Your task to perform on an android device: Open the Play Movies app and select the watchlist tab. Image 0: 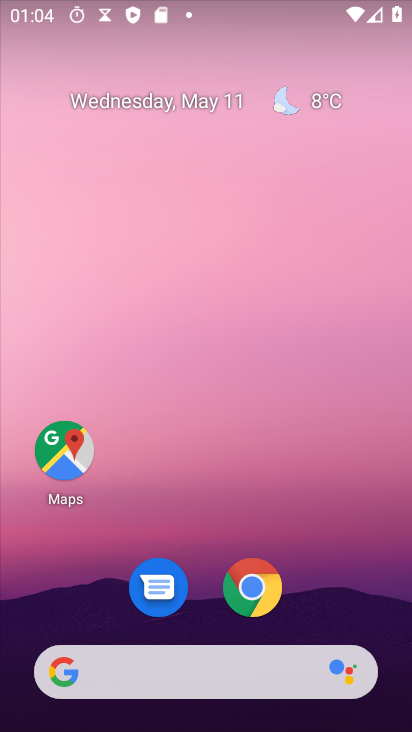
Step 0: drag from (361, 656) to (110, 126)
Your task to perform on an android device: Open the Play Movies app and select the watchlist tab. Image 1: 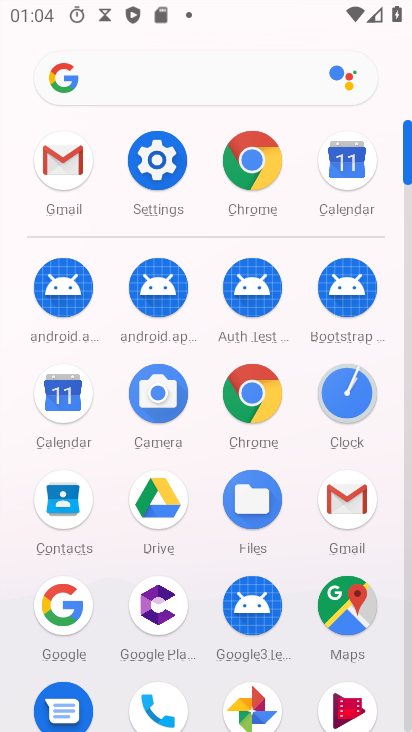
Step 1: drag from (321, 667) to (195, 141)
Your task to perform on an android device: Open the Play Movies app and select the watchlist tab. Image 2: 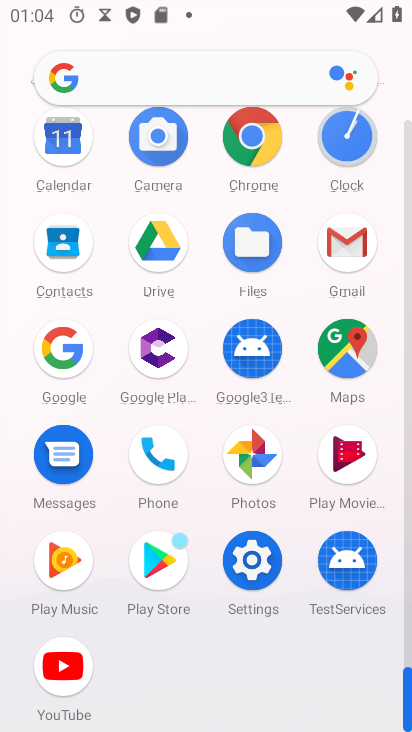
Step 2: drag from (266, 570) to (232, 197)
Your task to perform on an android device: Open the Play Movies app and select the watchlist tab. Image 3: 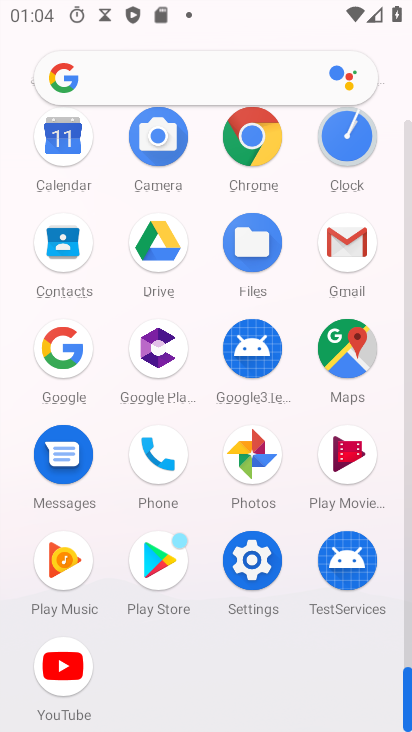
Step 3: click (75, 660)
Your task to perform on an android device: Open the Play Movies app and select the watchlist tab. Image 4: 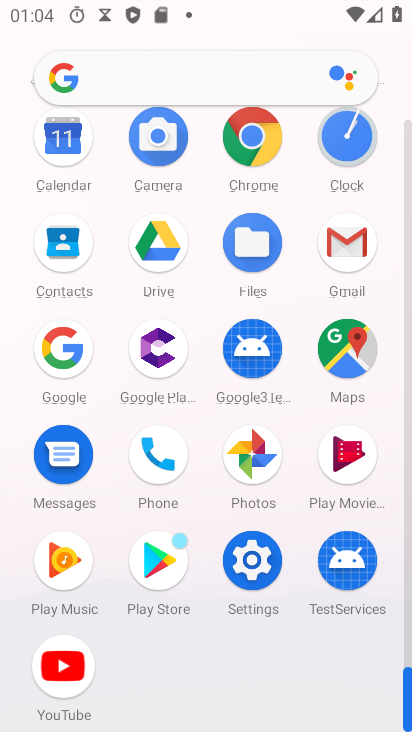
Step 4: click (73, 656)
Your task to perform on an android device: Open the Play Movies app and select the watchlist tab. Image 5: 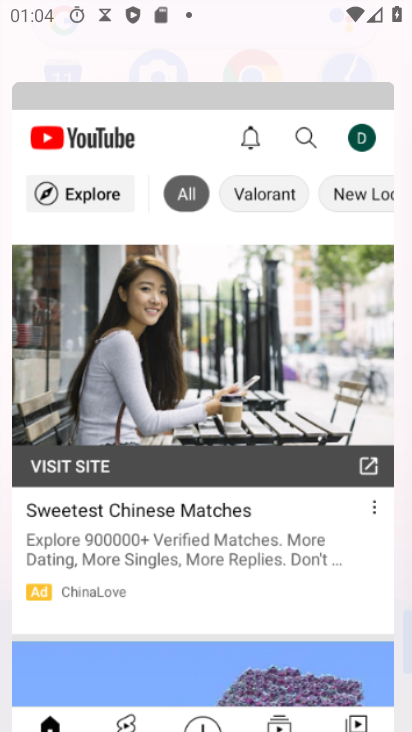
Step 5: click (73, 656)
Your task to perform on an android device: Open the Play Movies app and select the watchlist tab. Image 6: 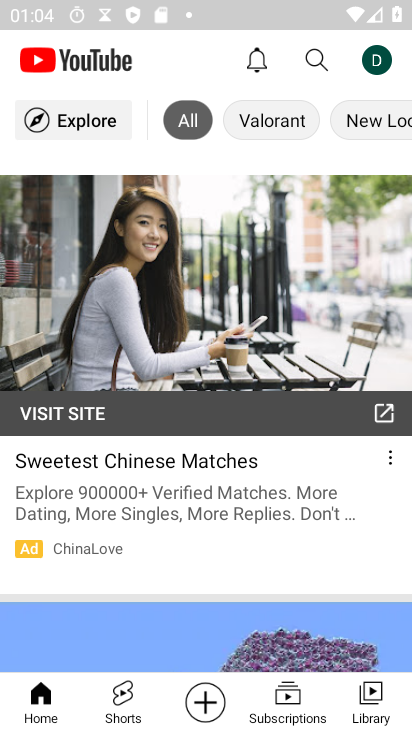
Step 6: drag from (265, 577) to (161, 283)
Your task to perform on an android device: Open the Play Movies app and select the watchlist tab. Image 7: 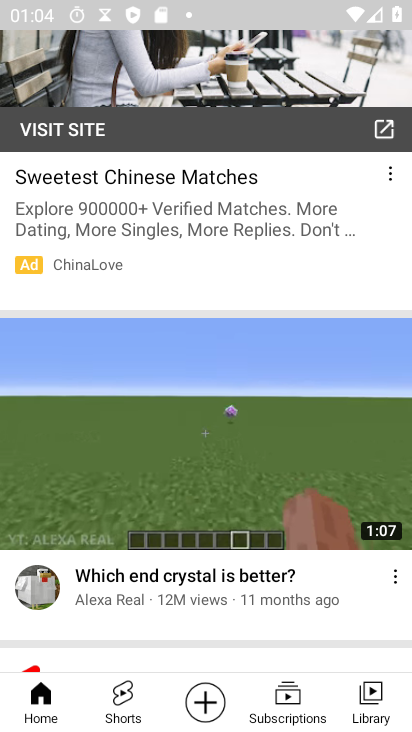
Step 7: press back button
Your task to perform on an android device: Open the Play Movies app and select the watchlist tab. Image 8: 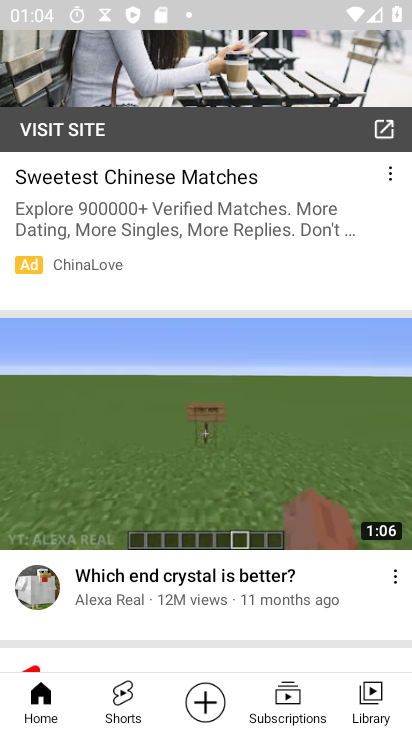
Step 8: press back button
Your task to perform on an android device: Open the Play Movies app and select the watchlist tab. Image 9: 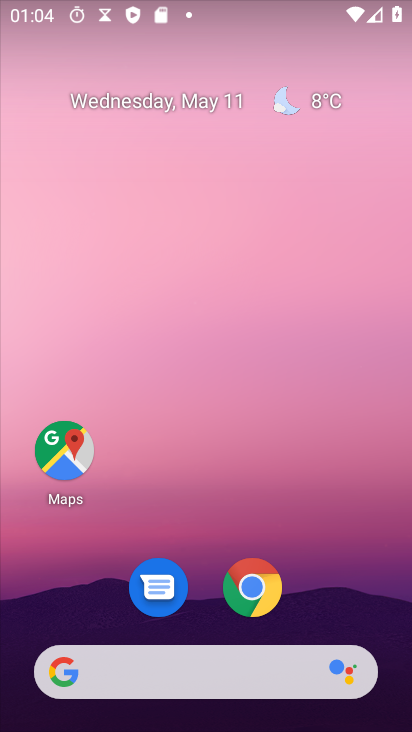
Step 9: drag from (334, 595) to (234, 338)
Your task to perform on an android device: Open the Play Movies app and select the watchlist tab. Image 10: 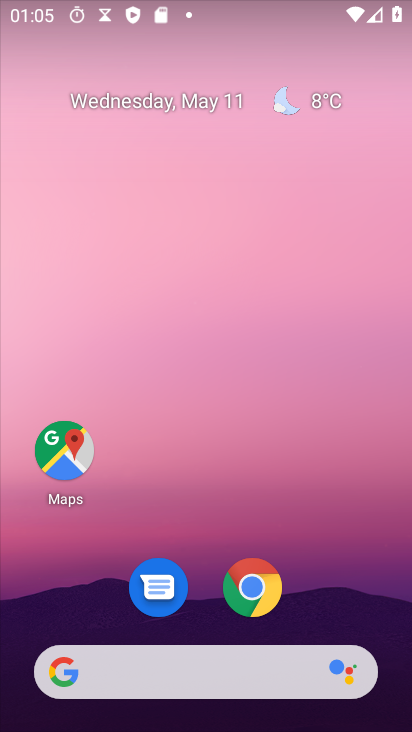
Step 10: drag from (320, 583) to (124, 192)
Your task to perform on an android device: Open the Play Movies app and select the watchlist tab. Image 11: 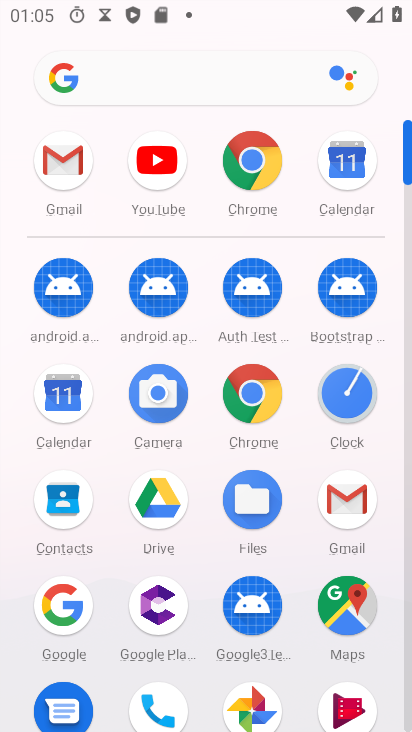
Step 11: drag from (304, 647) to (227, 153)
Your task to perform on an android device: Open the Play Movies app and select the watchlist tab. Image 12: 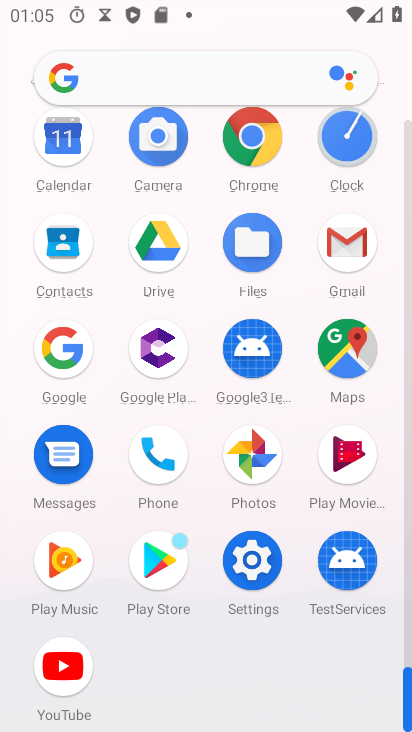
Step 12: click (58, 671)
Your task to perform on an android device: Open the Play Movies app and select the watchlist tab. Image 13: 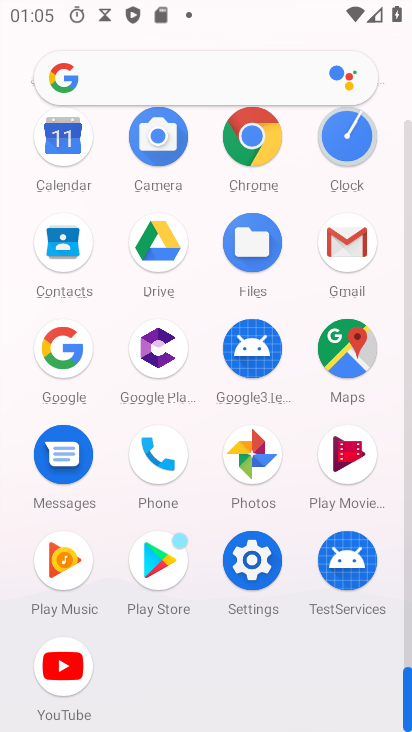
Step 13: click (58, 671)
Your task to perform on an android device: Open the Play Movies app and select the watchlist tab. Image 14: 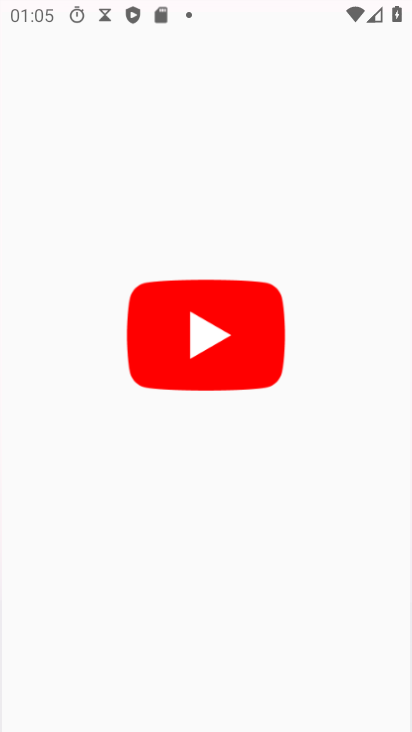
Step 14: click (58, 671)
Your task to perform on an android device: Open the Play Movies app and select the watchlist tab. Image 15: 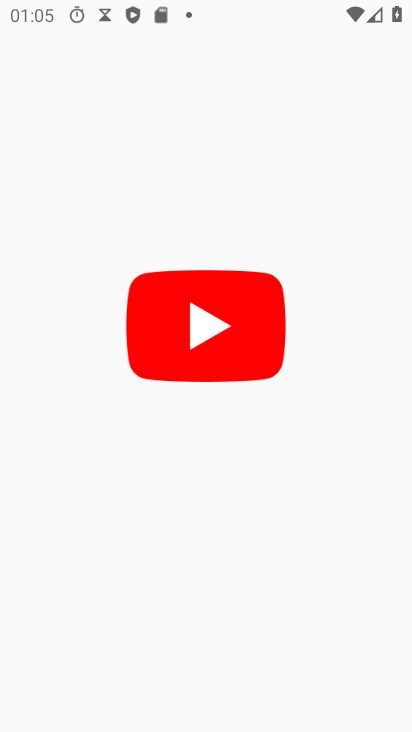
Step 15: click (58, 671)
Your task to perform on an android device: Open the Play Movies app and select the watchlist tab. Image 16: 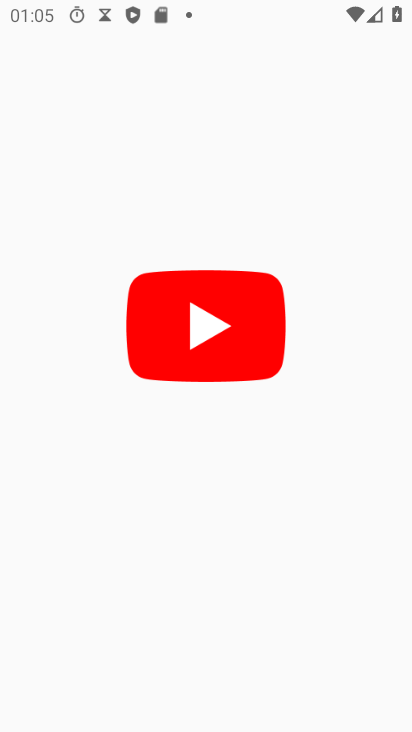
Step 16: click (59, 670)
Your task to perform on an android device: Open the Play Movies app and select the watchlist tab. Image 17: 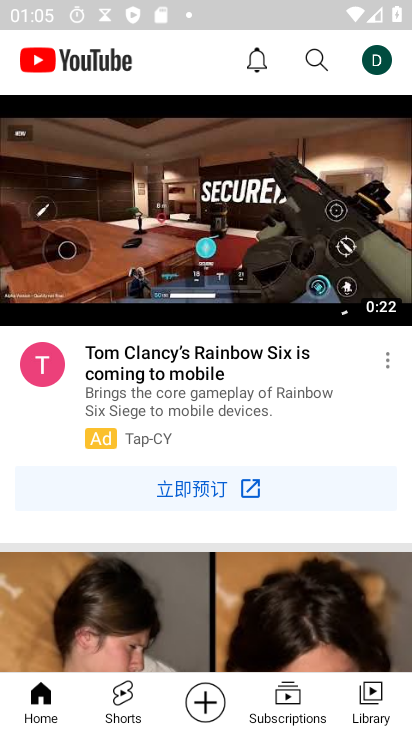
Step 17: press back button
Your task to perform on an android device: Open the Play Movies app and select the watchlist tab. Image 18: 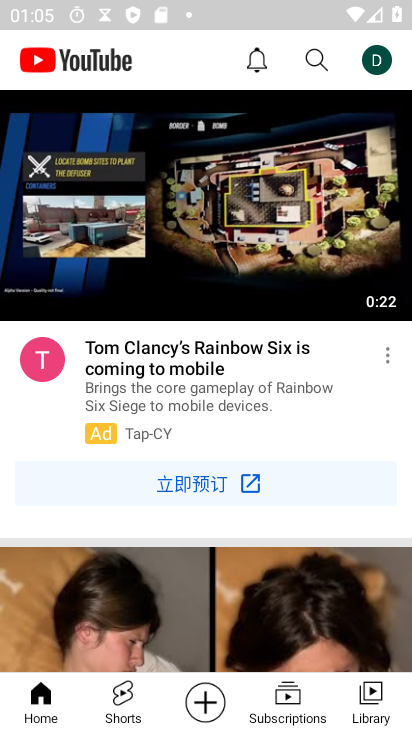
Step 18: press back button
Your task to perform on an android device: Open the Play Movies app and select the watchlist tab. Image 19: 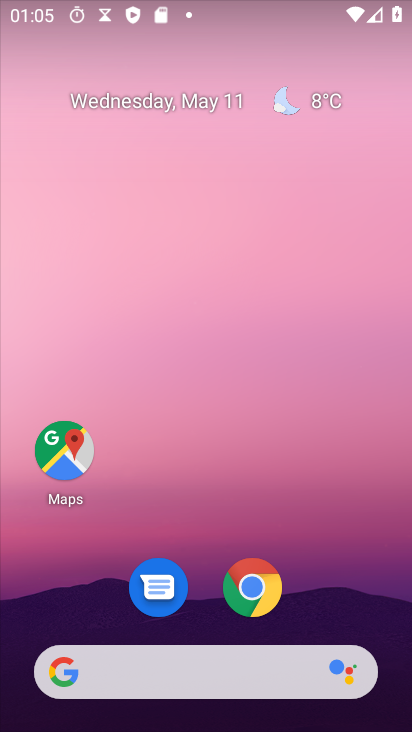
Step 19: press back button
Your task to perform on an android device: Open the Play Movies app and select the watchlist tab. Image 20: 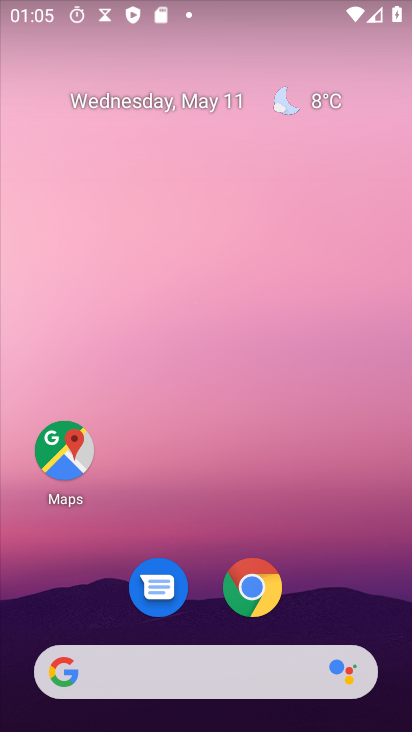
Step 20: drag from (268, 459) to (95, 134)
Your task to perform on an android device: Open the Play Movies app and select the watchlist tab. Image 21: 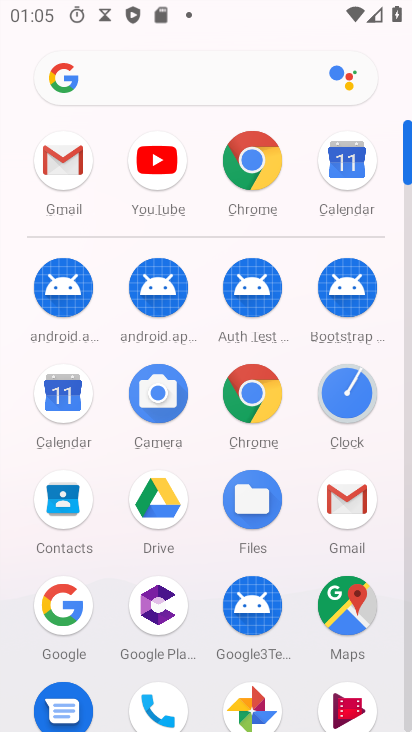
Step 21: drag from (294, 577) to (248, 79)
Your task to perform on an android device: Open the Play Movies app and select the watchlist tab. Image 22: 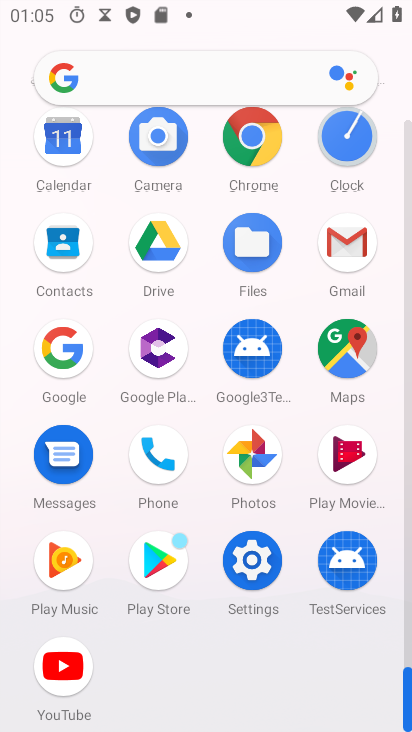
Step 22: click (360, 454)
Your task to perform on an android device: Open the Play Movies app and select the watchlist tab. Image 23: 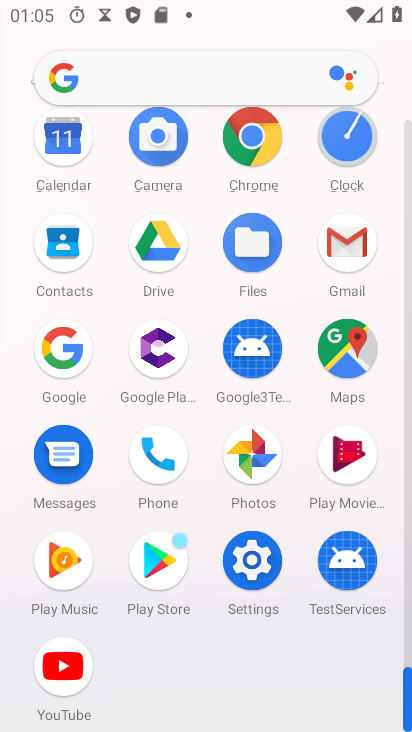
Step 23: click (353, 454)
Your task to perform on an android device: Open the Play Movies app and select the watchlist tab. Image 24: 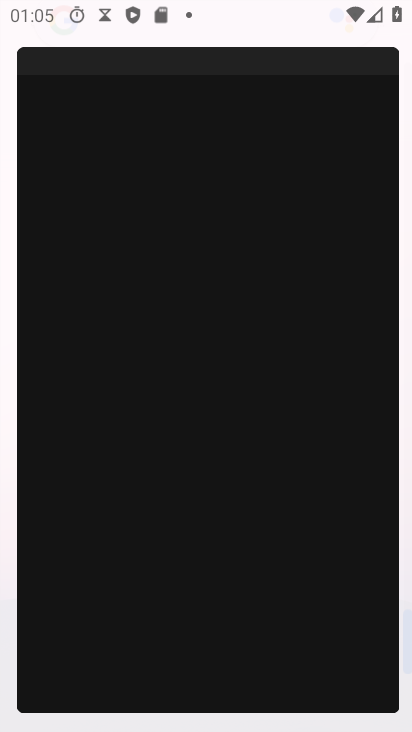
Step 24: click (352, 455)
Your task to perform on an android device: Open the Play Movies app and select the watchlist tab. Image 25: 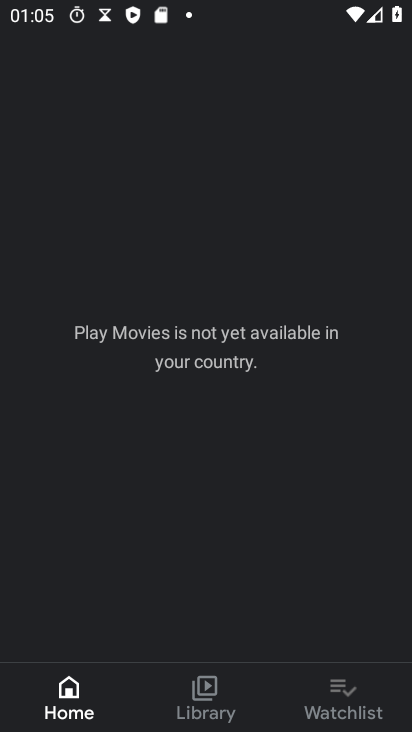
Step 25: click (347, 697)
Your task to perform on an android device: Open the Play Movies app and select the watchlist tab. Image 26: 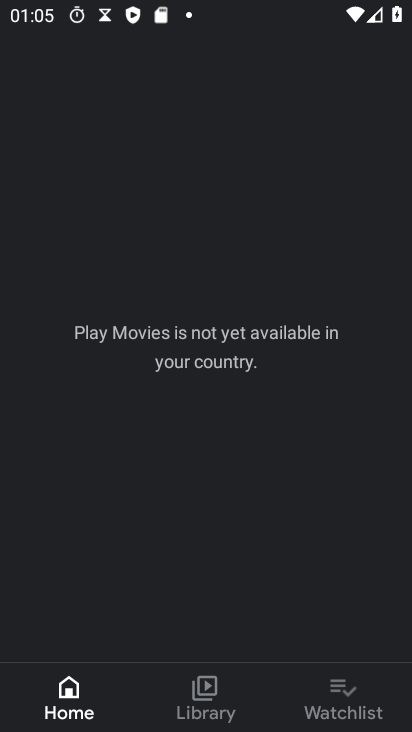
Step 26: click (347, 698)
Your task to perform on an android device: Open the Play Movies app and select the watchlist tab. Image 27: 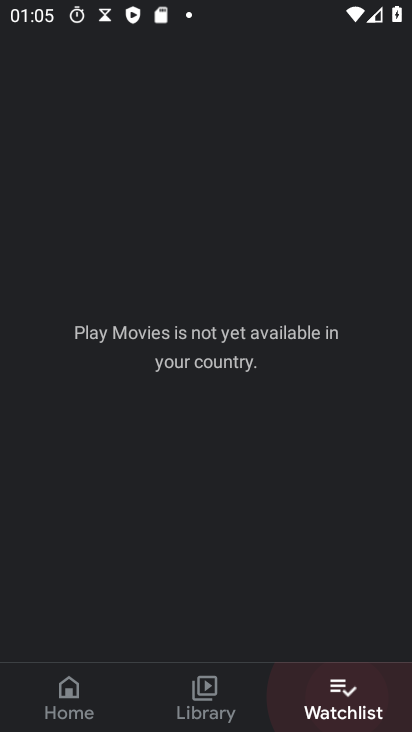
Step 27: click (347, 698)
Your task to perform on an android device: Open the Play Movies app and select the watchlist tab. Image 28: 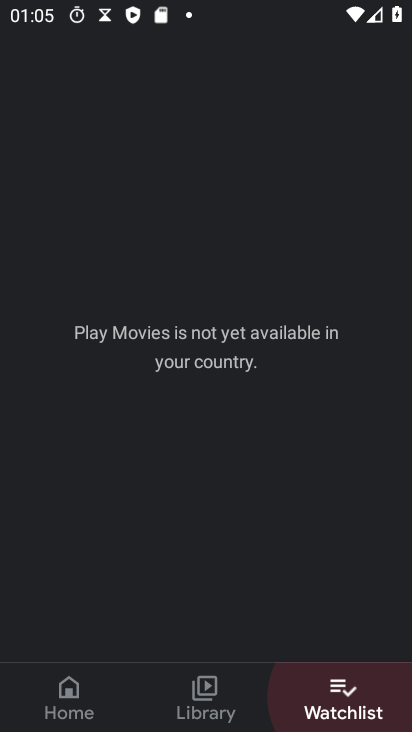
Step 28: click (347, 698)
Your task to perform on an android device: Open the Play Movies app and select the watchlist tab. Image 29: 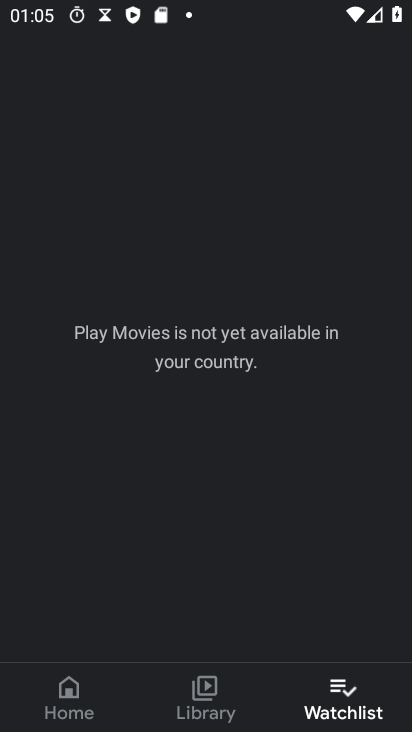
Step 29: task complete